Your task to perform on an android device: change the clock style Image 0: 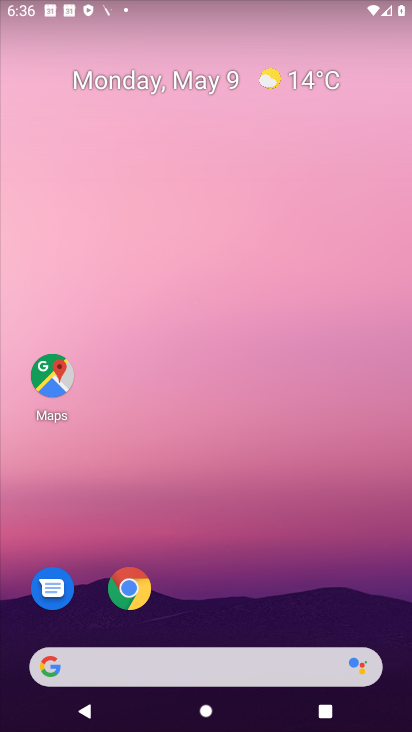
Step 0: drag from (336, 625) to (304, 42)
Your task to perform on an android device: change the clock style Image 1: 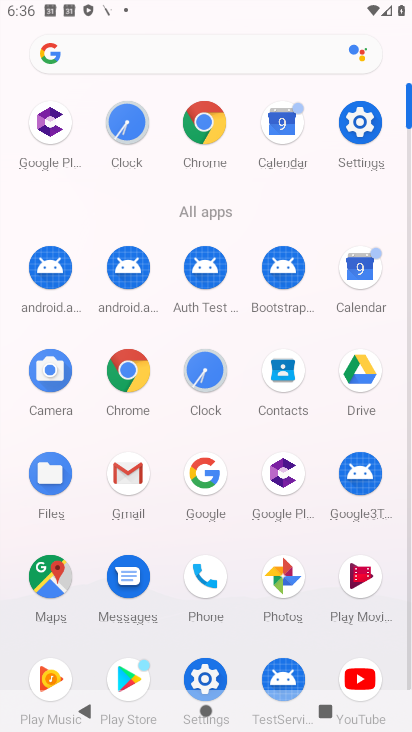
Step 1: click (204, 357)
Your task to perform on an android device: change the clock style Image 2: 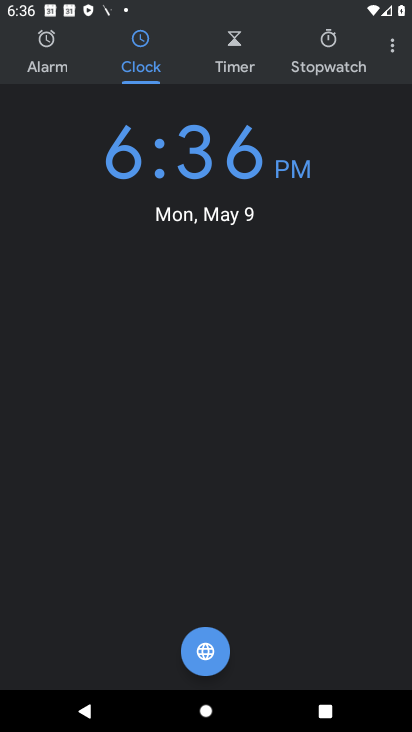
Step 2: click (390, 40)
Your task to perform on an android device: change the clock style Image 3: 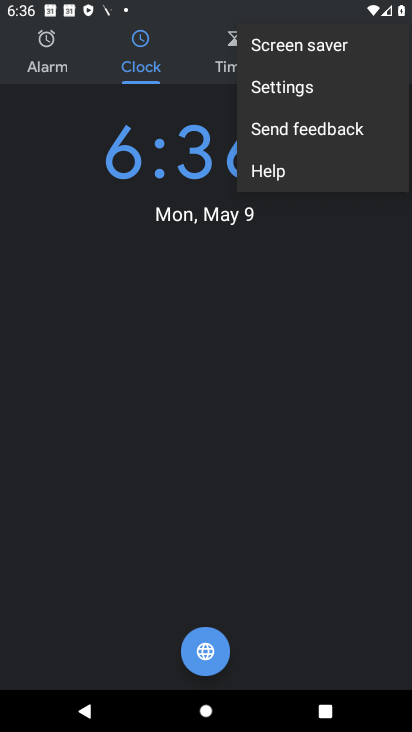
Step 3: click (315, 91)
Your task to perform on an android device: change the clock style Image 4: 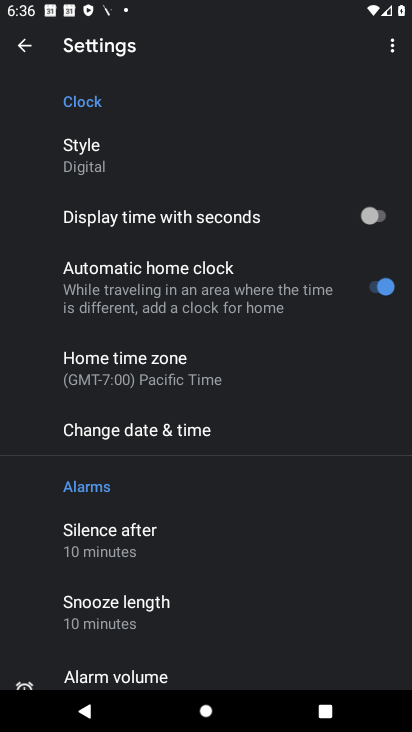
Step 4: click (178, 147)
Your task to perform on an android device: change the clock style Image 5: 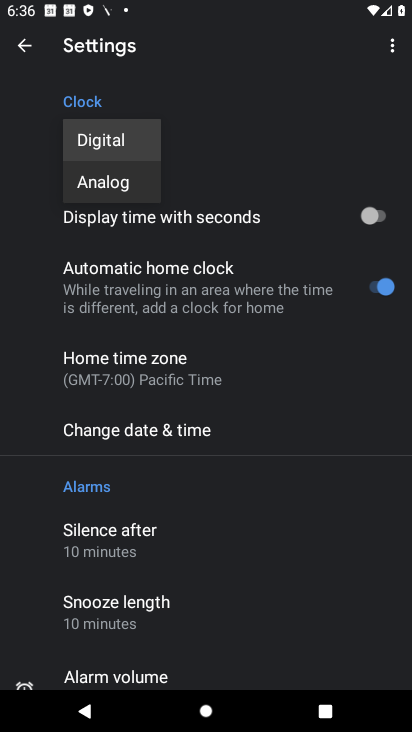
Step 5: click (80, 192)
Your task to perform on an android device: change the clock style Image 6: 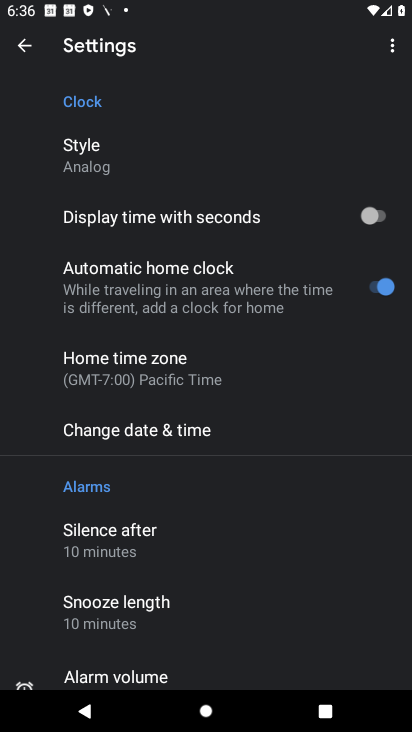
Step 6: task complete